Your task to perform on an android device: Set the phone to "Do not disturb". Image 0: 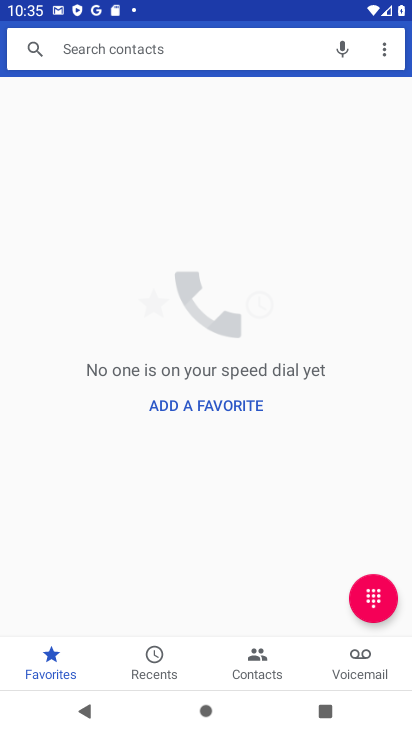
Step 0: press home button
Your task to perform on an android device: Set the phone to "Do not disturb". Image 1: 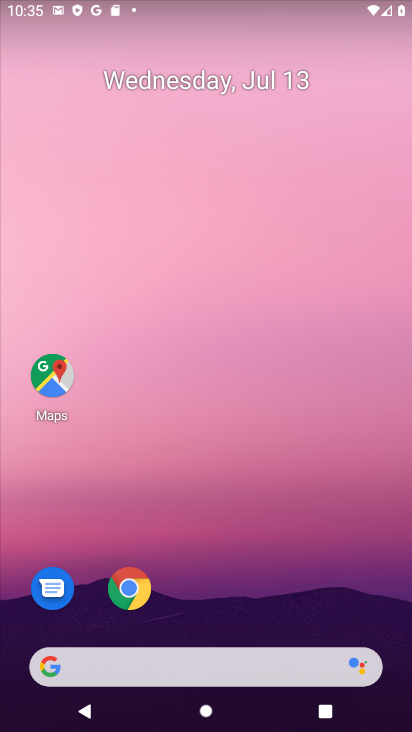
Step 1: drag from (242, 580) to (259, 1)
Your task to perform on an android device: Set the phone to "Do not disturb". Image 2: 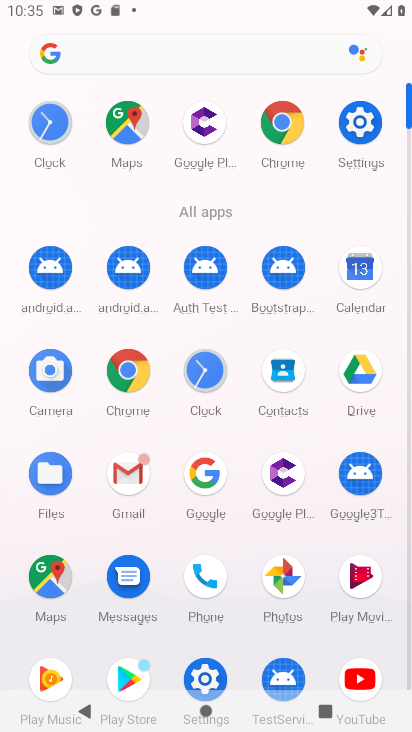
Step 2: click (203, 670)
Your task to perform on an android device: Set the phone to "Do not disturb". Image 3: 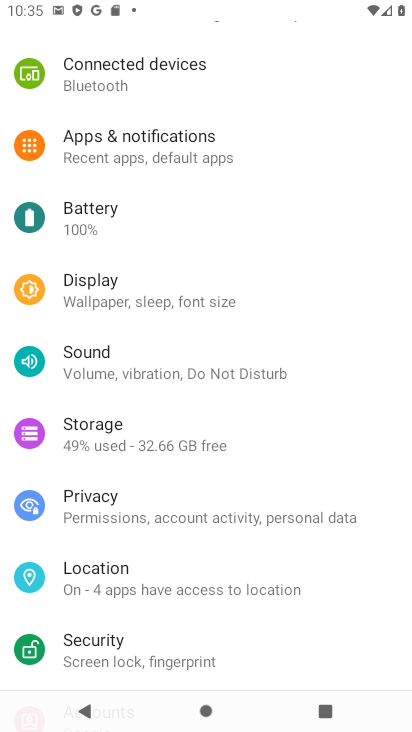
Step 3: click (150, 275)
Your task to perform on an android device: Set the phone to "Do not disturb". Image 4: 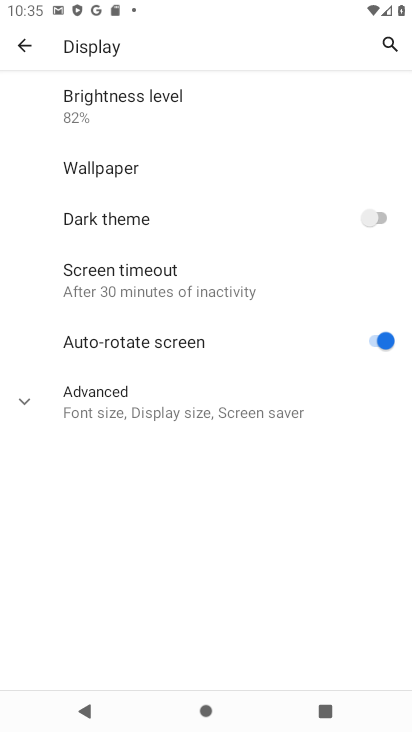
Step 4: click (24, 43)
Your task to perform on an android device: Set the phone to "Do not disturb". Image 5: 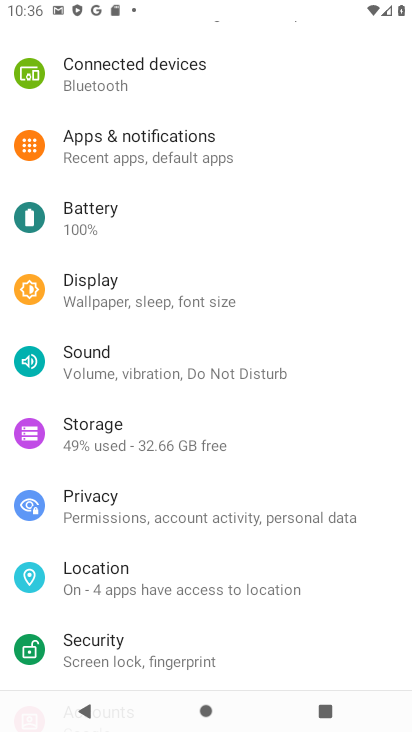
Step 5: click (111, 371)
Your task to perform on an android device: Set the phone to "Do not disturb". Image 6: 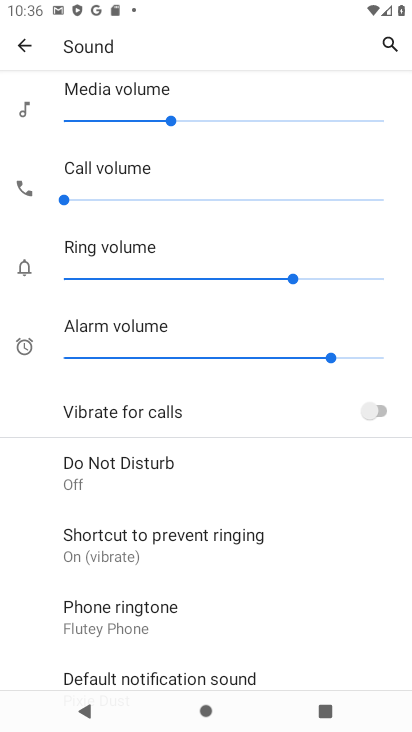
Step 6: click (164, 485)
Your task to perform on an android device: Set the phone to "Do not disturb". Image 7: 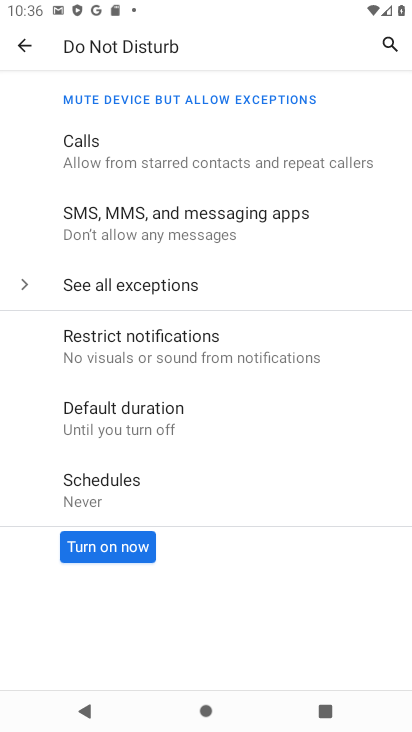
Step 7: click (109, 550)
Your task to perform on an android device: Set the phone to "Do not disturb". Image 8: 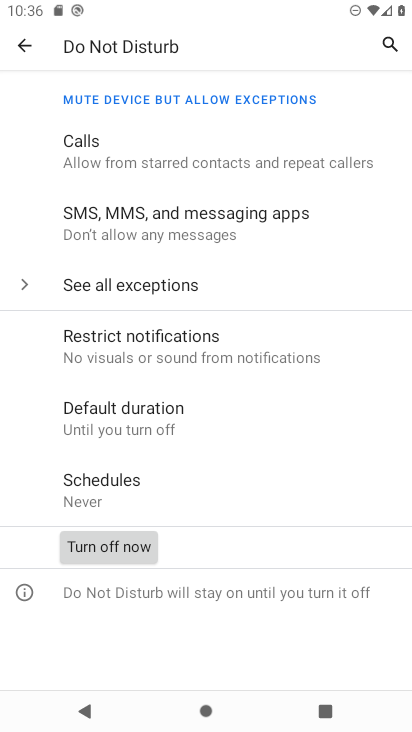
Step 8: task complete